Your task to perform on an android device: change the clock style Image 0: 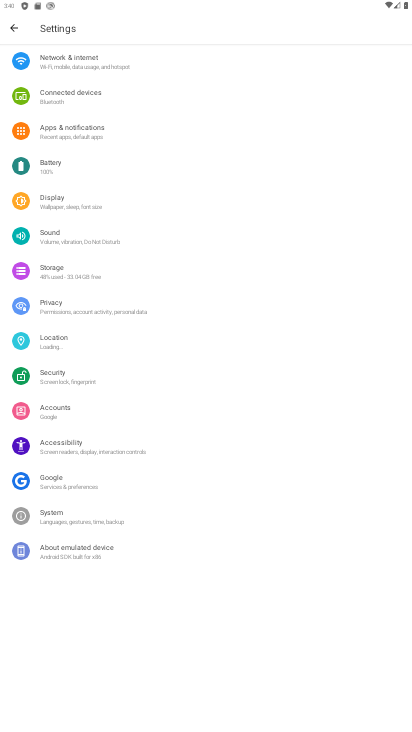
Step 0: press home button
Your task to perform on an android device: change the clock style Image 1: 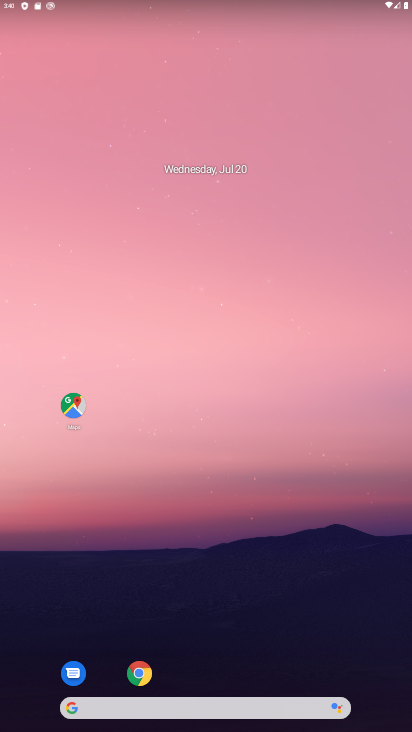
Step 1: drag from (236, 644) to (168, 185)
Your task to perform on an android device: change the clock style Image 2: 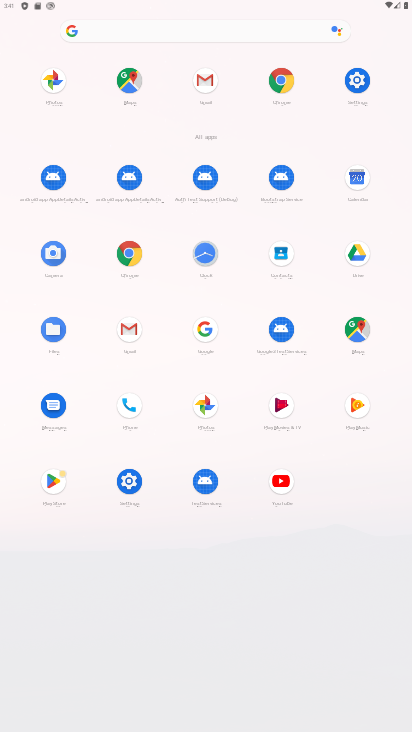
Step 2: click (208, 263)
Your task to perform on an android device: change the clock style Image 3: 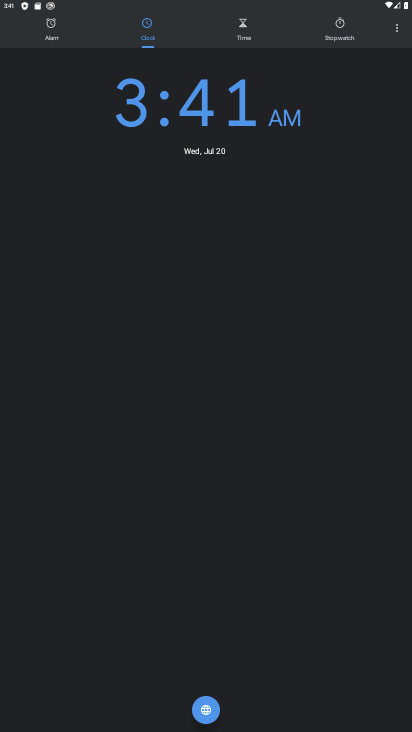
Step 3: click (400, 35)
Your task to perform on an android device: change the clock style Image 4: 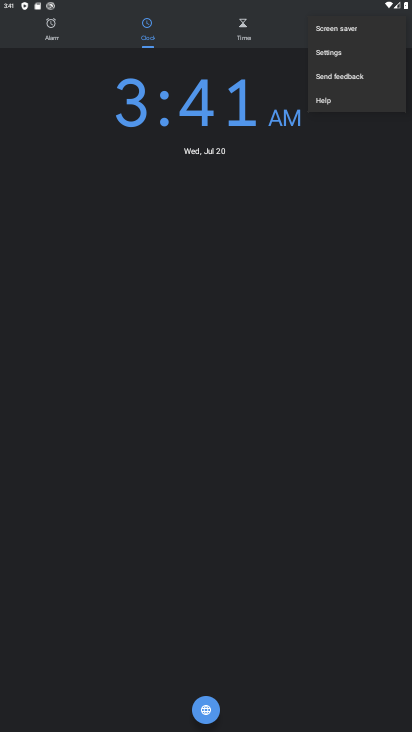
Step 4: click (378, 49)
Your task to perform on an android device: change the clock style Image 5: 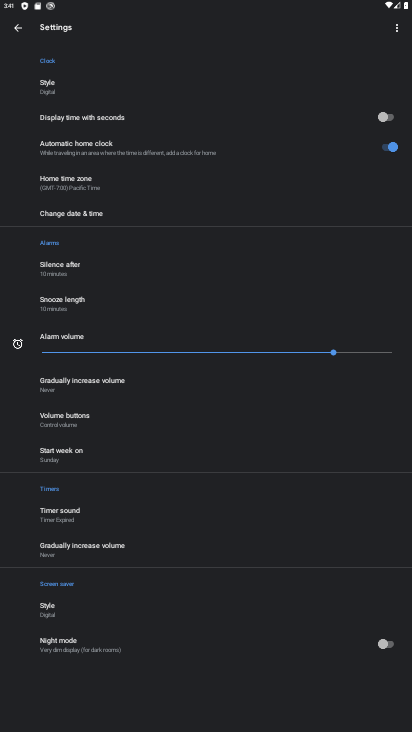
Step 5: click (191, 87)
Your task to perform on an android device: change the clock style Image 6: 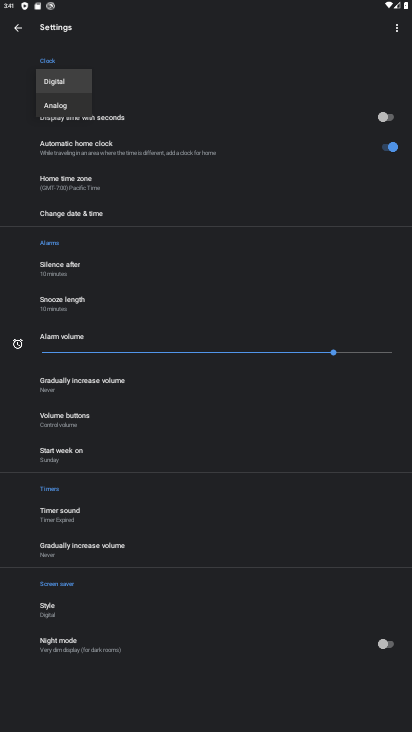
Step 6: click (84, 106)
Your task to perform on an android device: change the clock style Image 7: 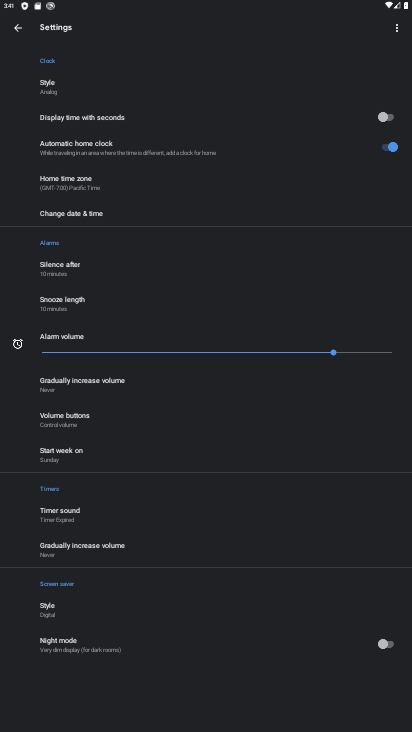
Step 7: task complete